Your task to perform on an android device: Go to calendar. Show me events next week Image 0: 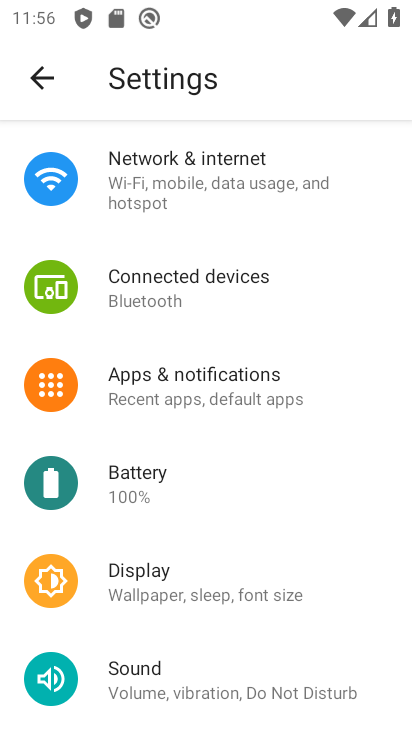
Step 0: press home button
Your task to perform on an android device: Go to calendar. Show me events next week Image 1: 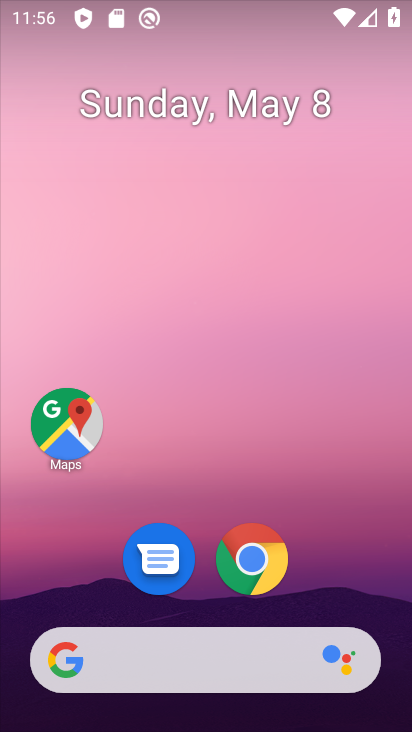
Step 1: drag from (267, 447) to (240, 48)
Your task to perform on an android device: Go to calendar. Show me events next week Image 2: 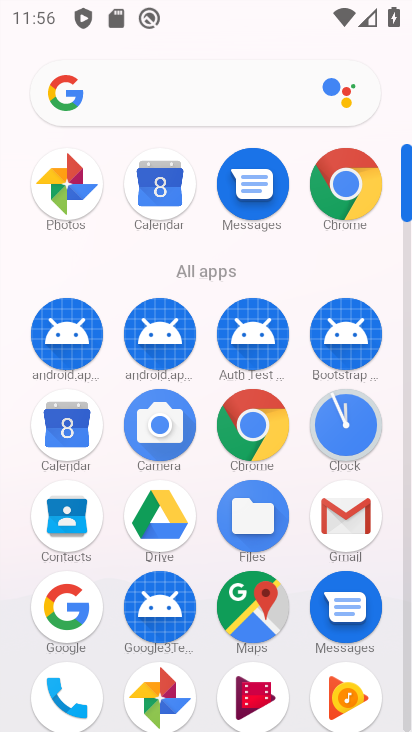
Step 2: click (171, 173)
Your task to perform on an android device: Go to calendar. Show me events next week Image 3: 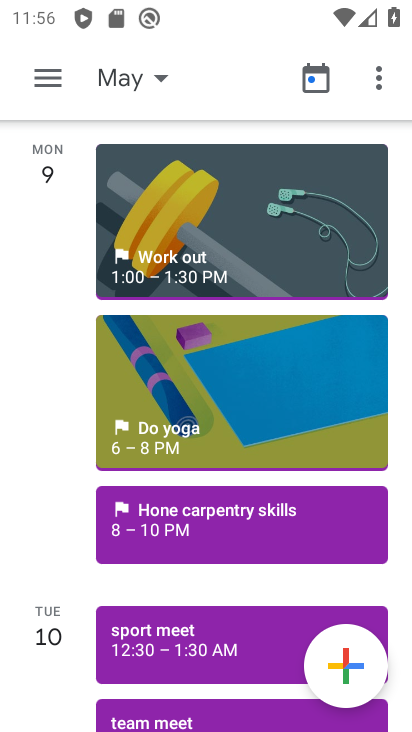
Step 3: click (137, 82)
Your task to perform on an android device: Go to calendar. Show me events next week Image 4: 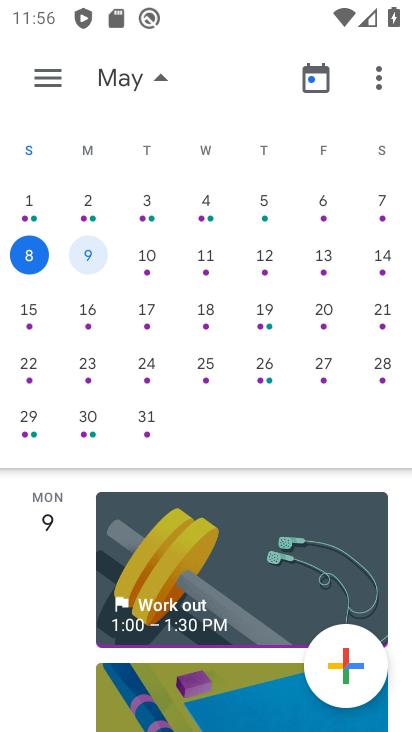
Step 4: click (96, 305)
Your task to perform on an android device: Go to calendar. Show me events next week Image 5: 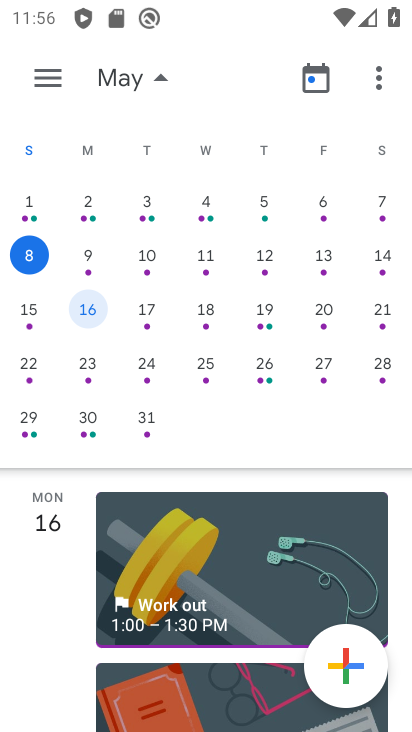
Step 5: task complete